Your task to perform on an android device: open a new tab in the chrome app Image 0: 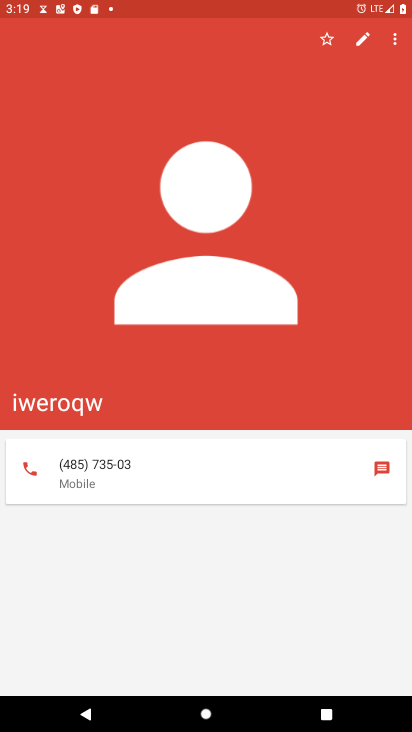
Step 0: press home button
Your task to perform on an android device: open a new tab in the chrome app Image 1: 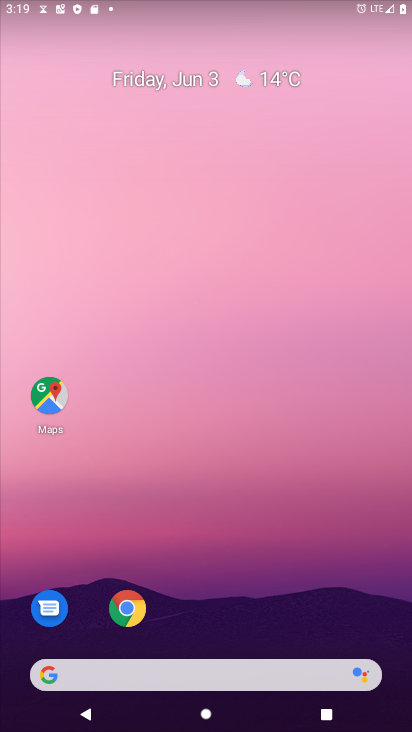
Step 1: click (130, 627)
Your task to perform on an android device: open a new tab in the chrome app Image 2: 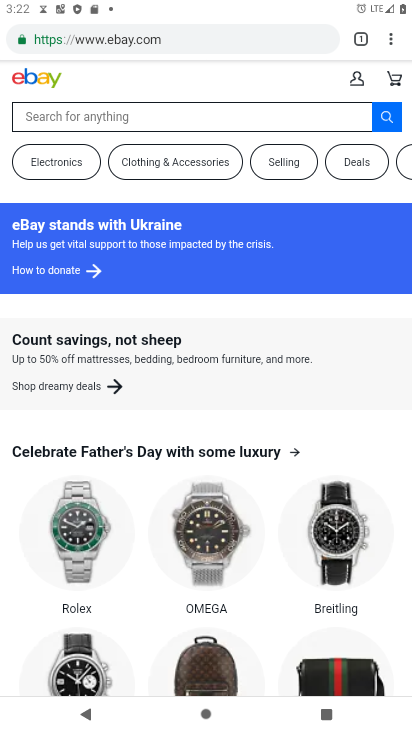
Step 2: task complete